Your task to perform on an android device: Go to Wikipedia Image 0: 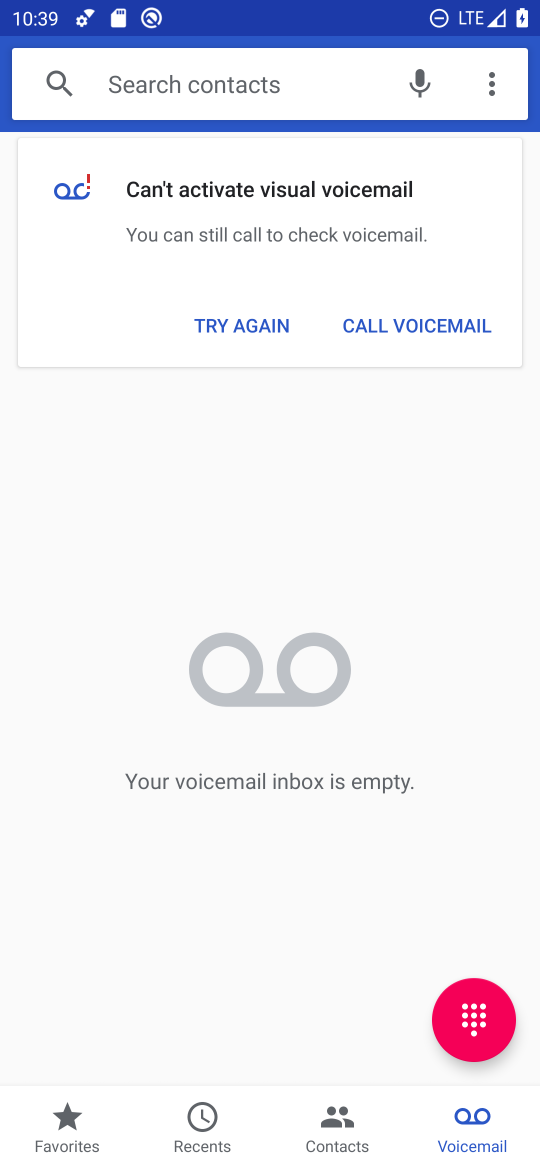
Step 0: press home button
Your task to perform on an android device: Go to Wikipedia Image 1: 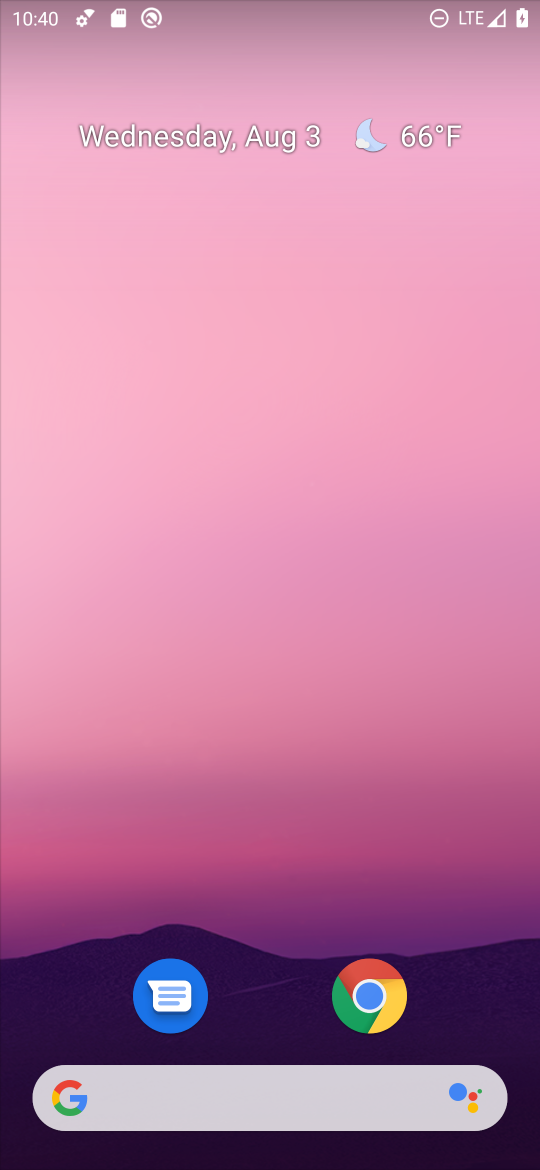
Step 1: click (380, 979)
Your task to perform on an android device: Go to Wikipedia Image 2: 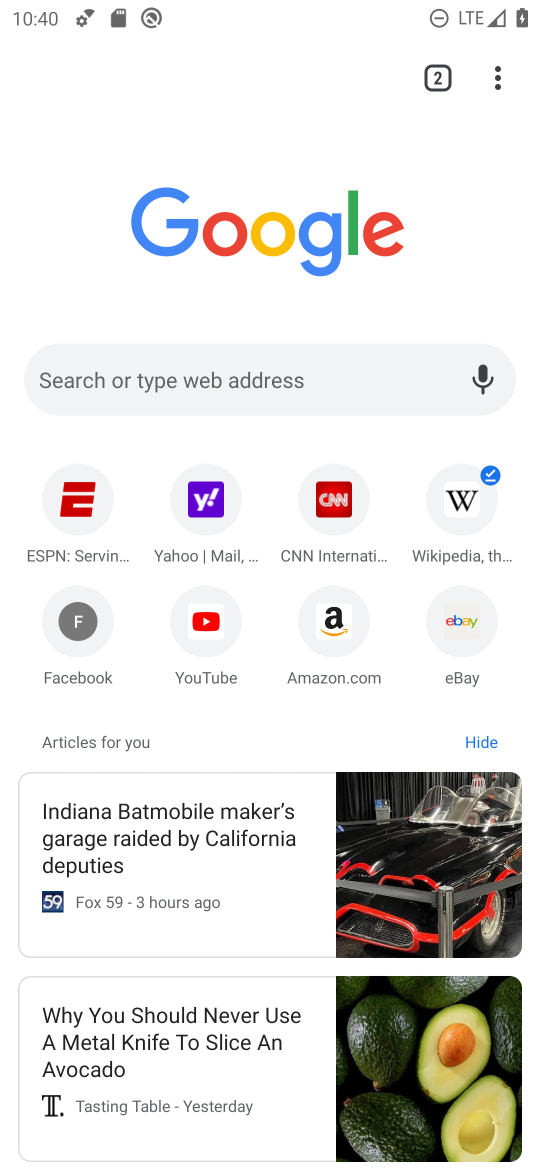
Step 2: click (454, 498)
Your task to perform on an android device: Go to Wikipedia Image 3: 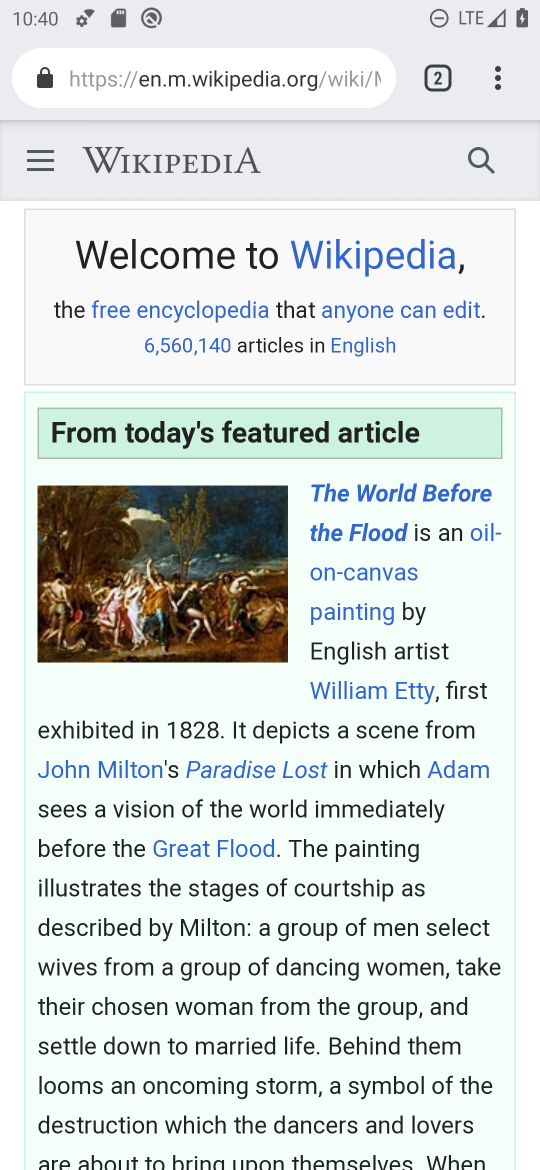
Step 3: task complete